Your task to perform on an android device: turn off wifi Image 0: 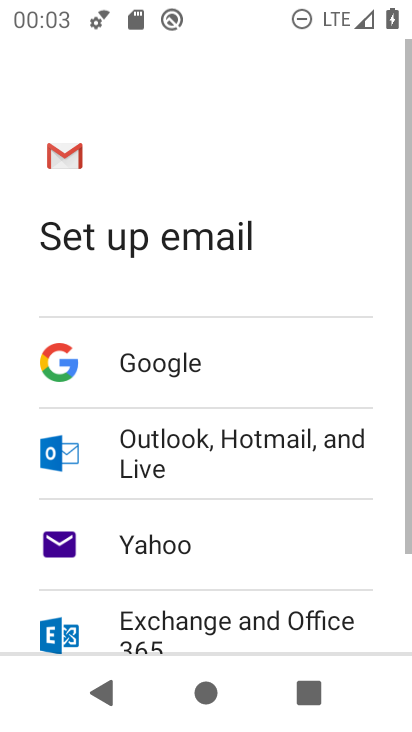
Step 0: press home button
Your task to perform on an android device: turn off wifi Image 1: 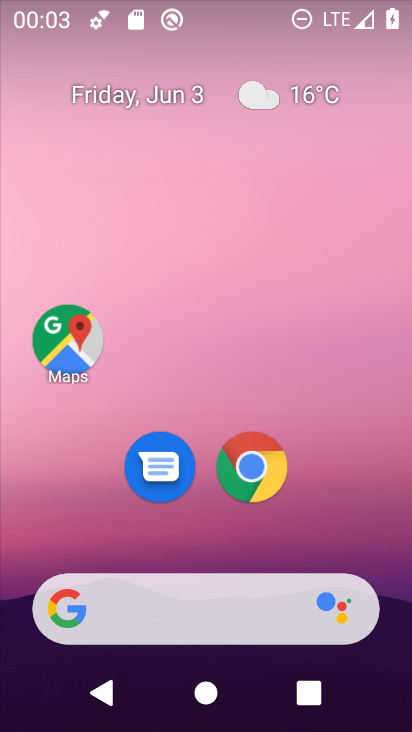
Step 1: drag from (370, 559) to (294, 129)
Your task to perform on an android device: turn off wifi Image 2: 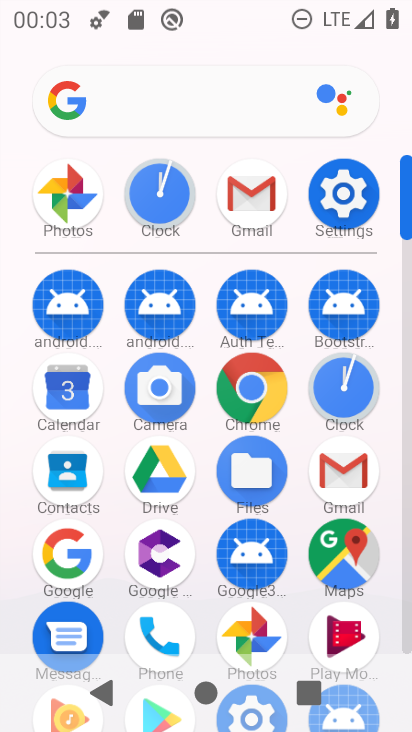
Step 2: click (410, 632)
Your task to perform on an android device: turn off wifi Image 3: 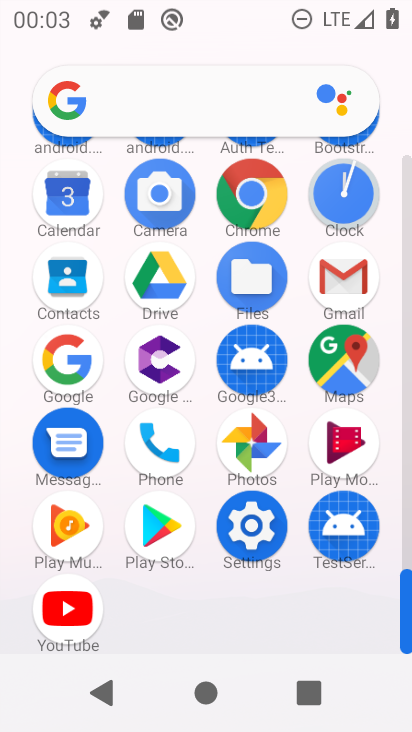
Step 3: click (252, 521)
Your task to perform on an android device: turn off wifi Image 4: 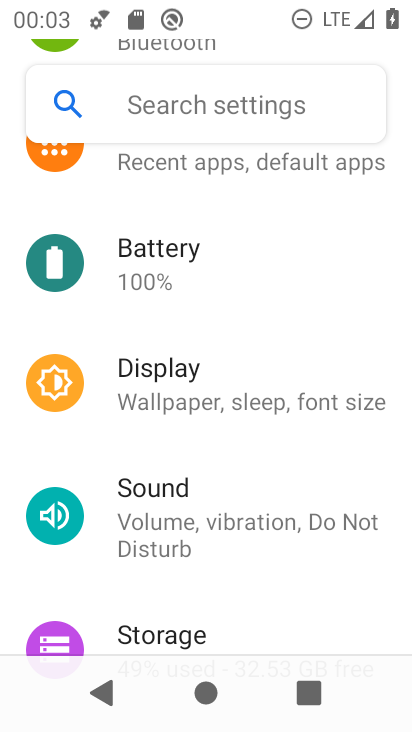
Step 4: drag from (296, 193) to (301, 508)
Your task to perform on an android device: turn off wifi Image 5: 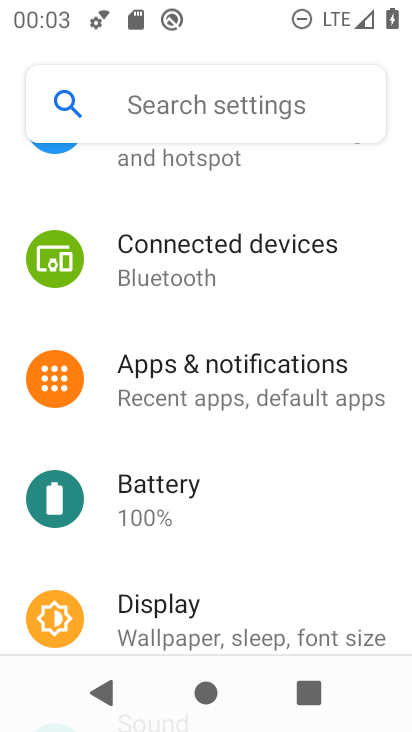
Step 5: drag from (230, 208) to (235, 464)
Your task to perform on an android device: turn off wifi Image 6: 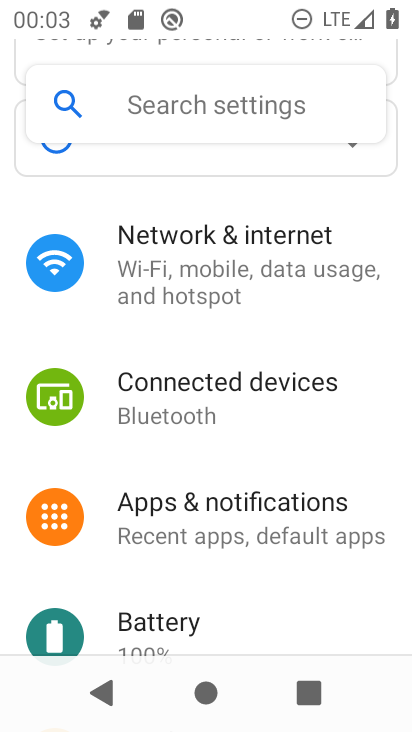
Step 6: click (169, 242)
Your task to perform on an android device: turn off wifi Image 7: 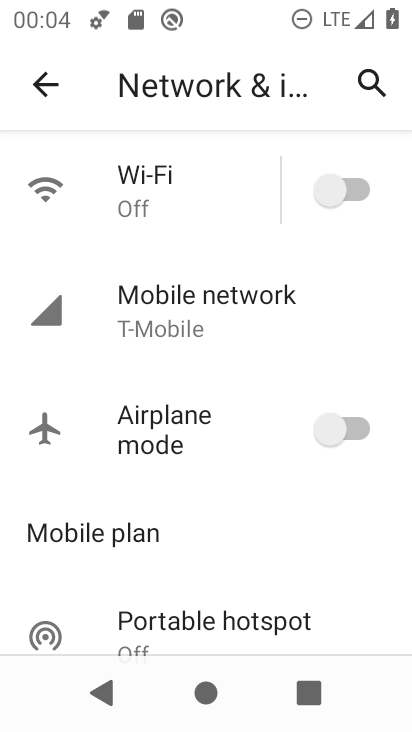
Step 7: task complete